Your task to perform on an android device: turn vacation reply on in the gmail app Image 0: 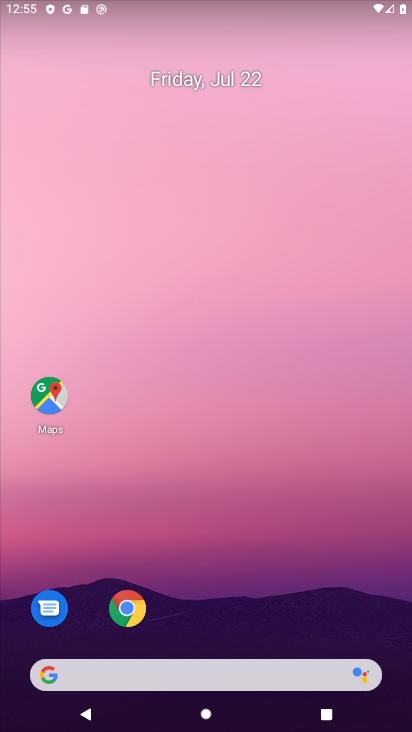
Step 0: drag from (320, 595) to (232, 59)
Your task to perform on an android device: turn vacation reply on in the gmail app Image 1: 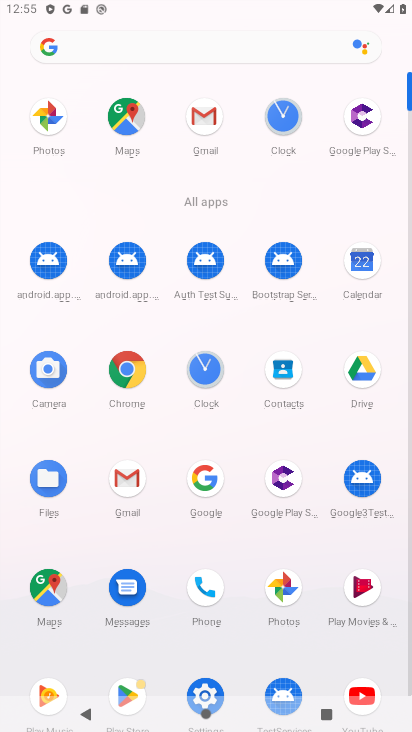
Step 1: click (127, 472)
Your task to perform on an android device: turn vacation reply on in the gmail app Image 2: 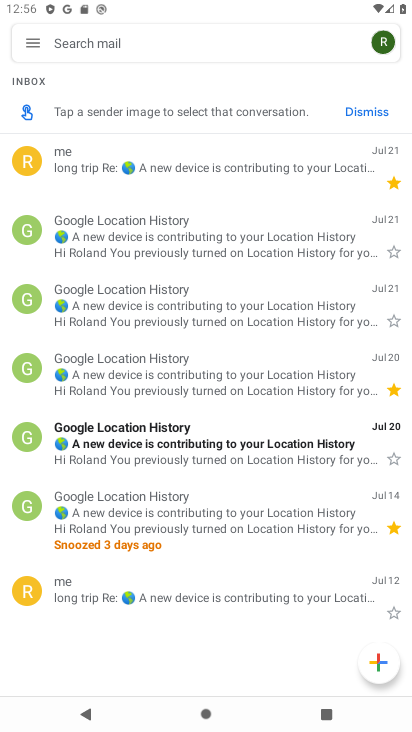
Step 2: click (34, 53)
Your task to perform on an android device: turn vacation reply on in the gmail app Image 3: 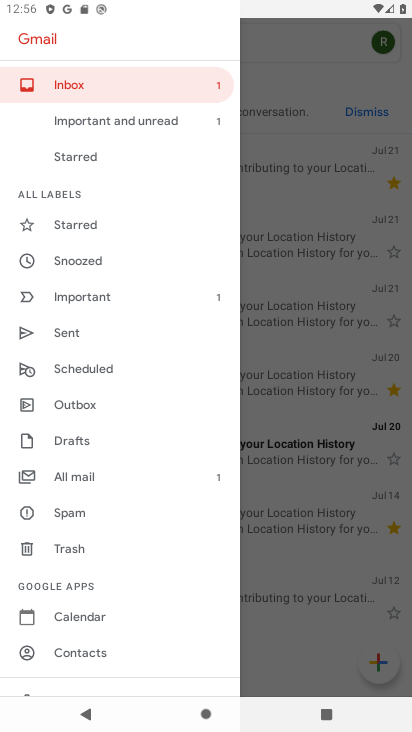
Step 3: drag from (102, 581) to (67, 225)
Your task to perform on an android device: turn vacation reply on in the gmail app Image 4: 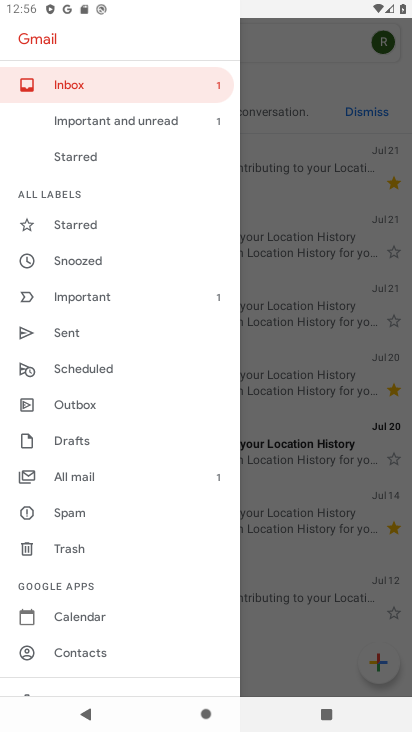
Step 4: drag from (152, 598) to (155, 291)
Your task to perform on an android device: turn vacation reply on in the gmail app Image 5: 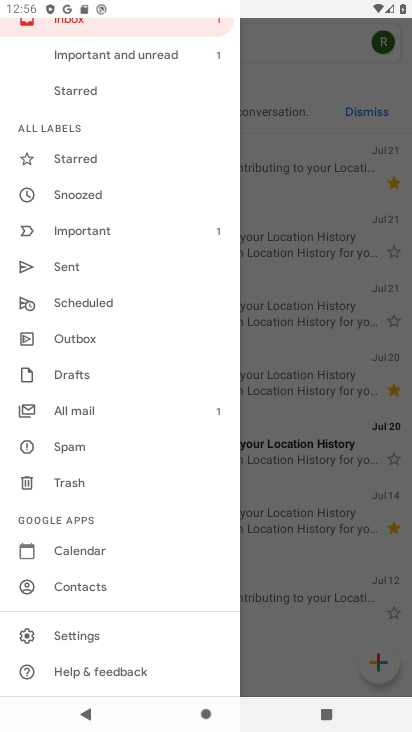
Step 5: click (111, 630)
Your task to perform on an android device: turn vacation reply on in the gmail app Image 6: 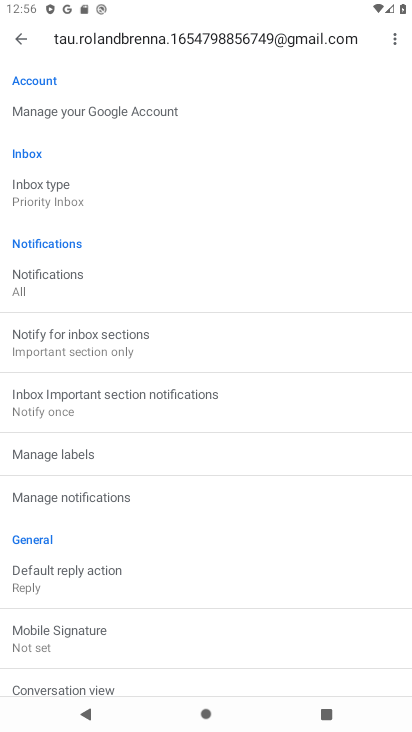
Step 6: drag from (199, 597) to (175, 318)
Your task to perform on an android device: turn vacation reply on in the gmail app Image 7: 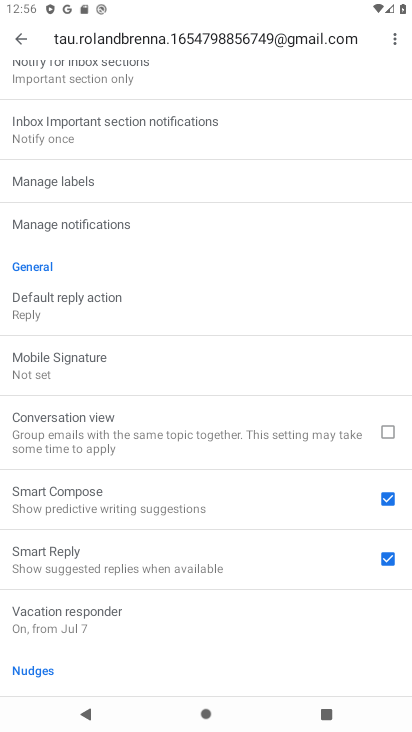
Step 7: click (206, 616)
Your task to perform on an android device: turn vacation reply on in the gmail app Image 8: 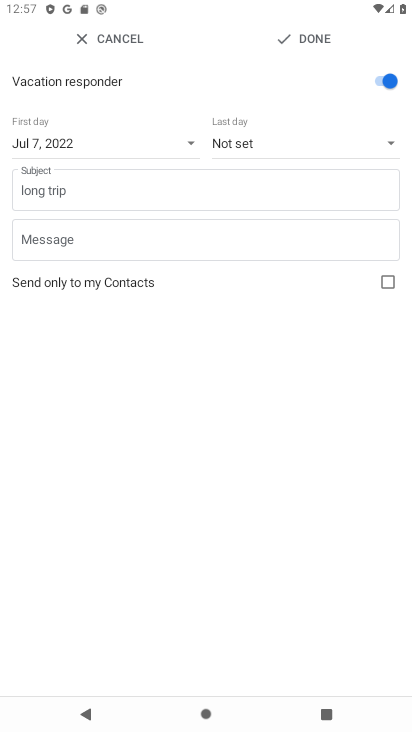
Step 8: click (303, 36)
Your task to perform on an android device: turn vacation reply on in the gmail app Image 9: 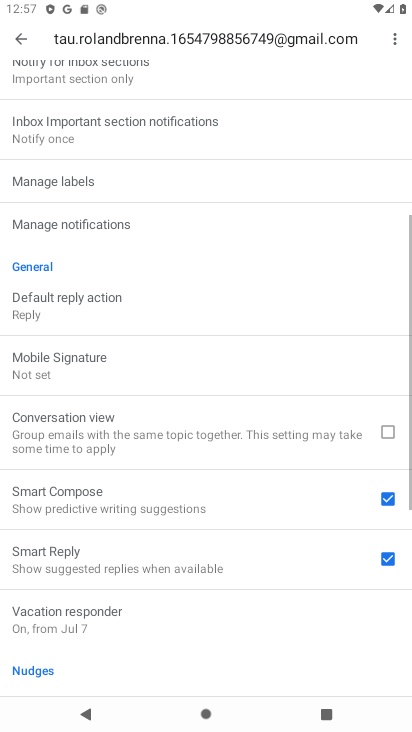
Step 9: task complete